Your task to perform on an android device: empty trash in google photos Image 0: 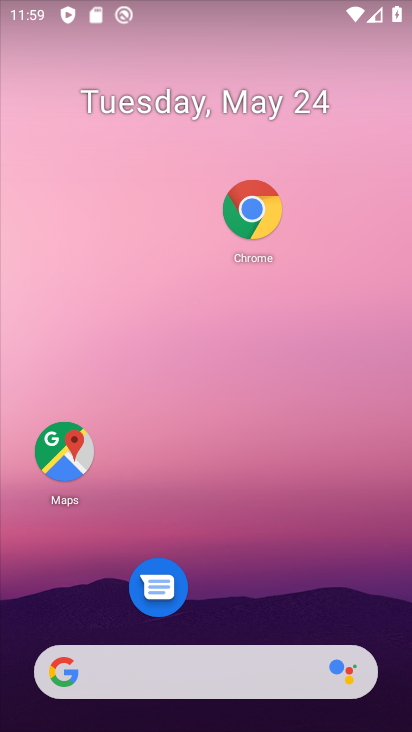
Step 0: drag from (215, 632) to (205, 155)
Your task to perform on an android device: empty trash in google photos Image 1: 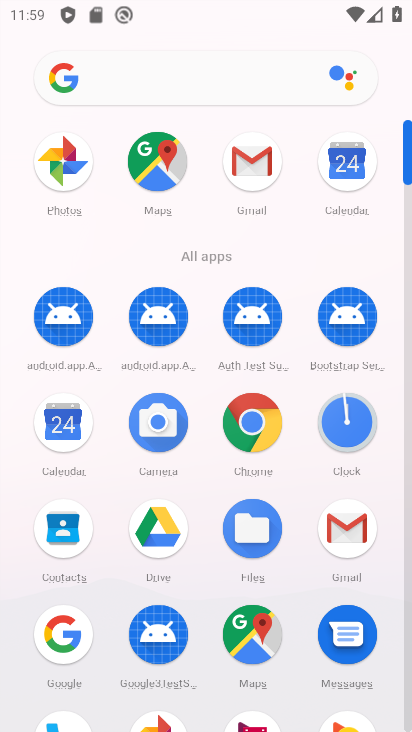
Step 1: click (61, 156)
Your task to perform on an android device: empty trash in google photos Image 2: 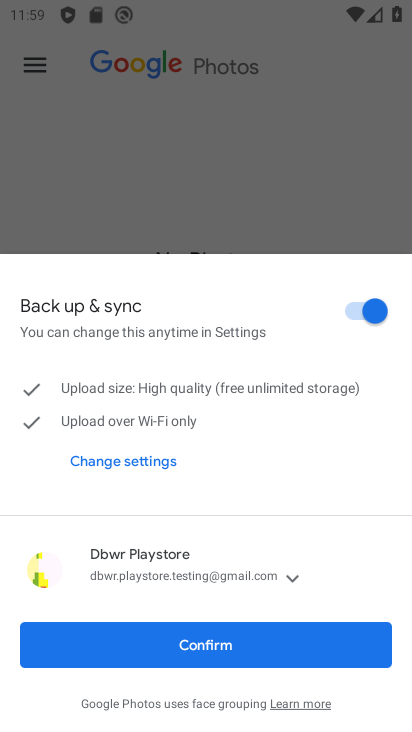
Step 2: click (209, 649)
Your task to perform on an android device: empty trash in google photos Image 3: 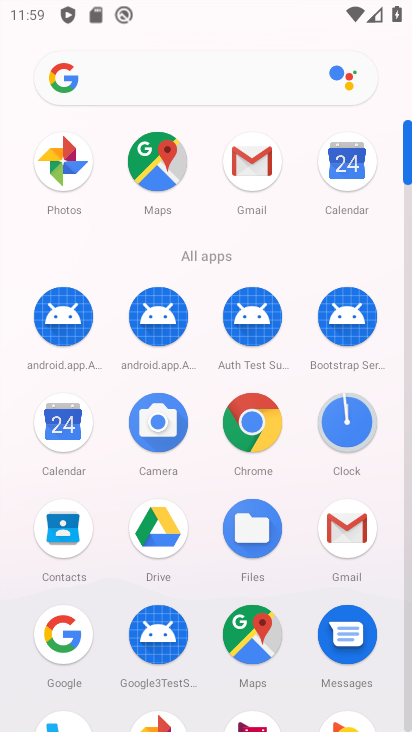
Step 3: click (59, 154)
Your task to perform on an android device: empty trash in google photos Image 4: 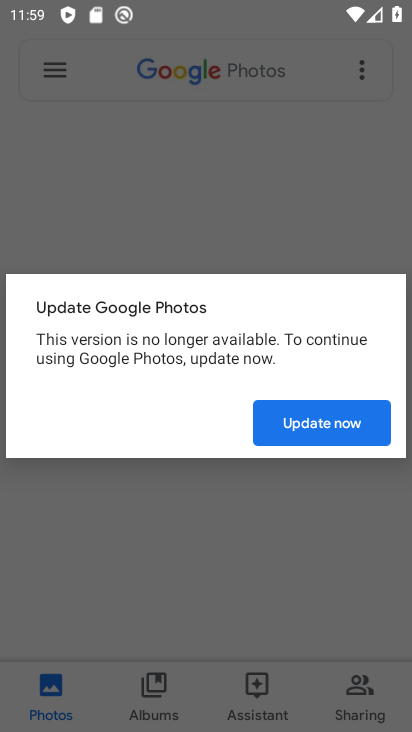
Step 4: click (326, 428)
Your task to perform on an android device: empty trash in google photos Image 5: 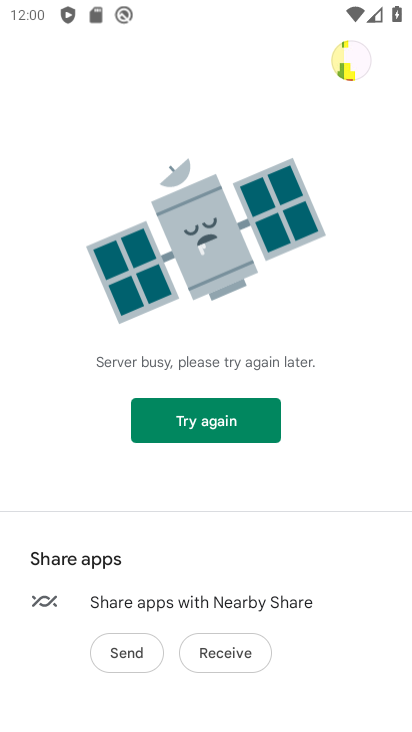
Step 5: click (207, 402)
Your task to perform on an android device: empty trash in google photos Image 6: 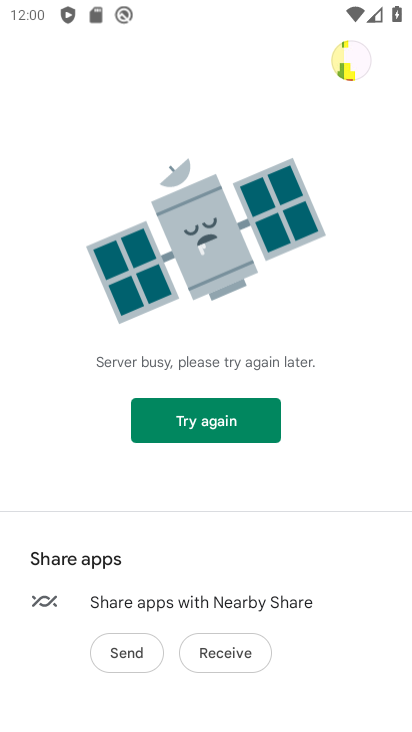
Step 6: task complete